Your task to perform on an android device: Open Google Chrome and click the shortcut for Amazon.com Image 0: 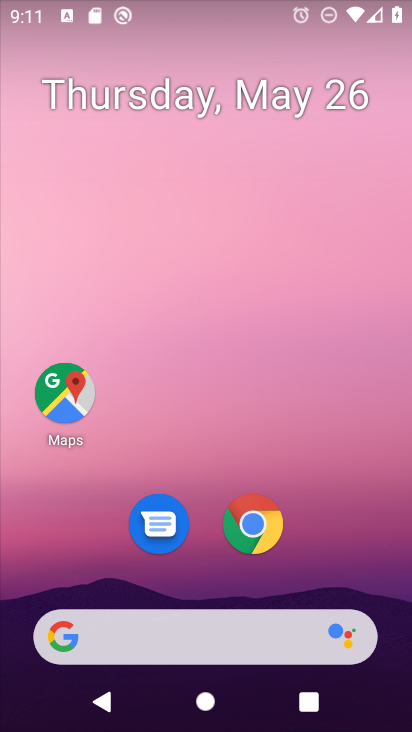
Step 0: click (258, 519)
Your task to perform on an android device: Open Google Chrome and click the shortcut for Amazon.com Image 1: 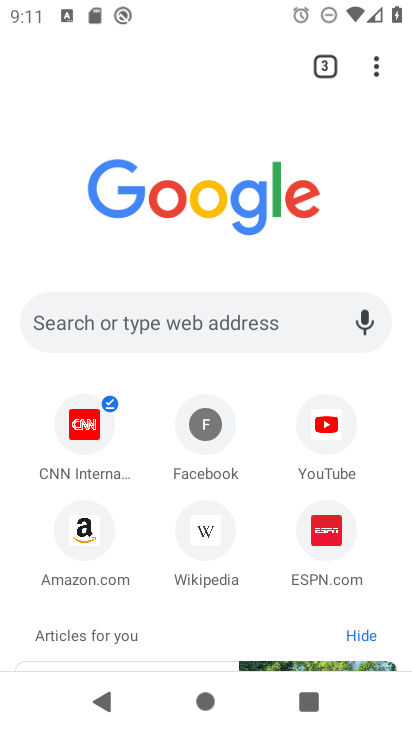
Step 1: click (84, 513)
Your task to perform on an android device: Open Google Chrome and click the shortcut for Amazon.com Image 2: 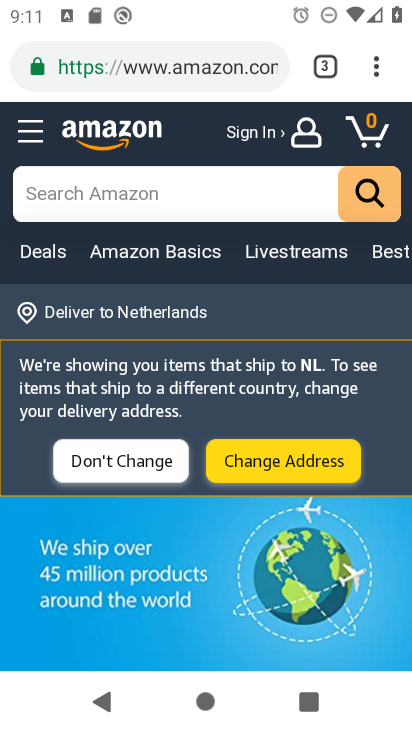
Step 2: task complete